Your task to perform on an android device: Clear all items from cart on amazon.com. Add "energizer triple a" to the cart on amazon.com, then select checkout. Image 0: 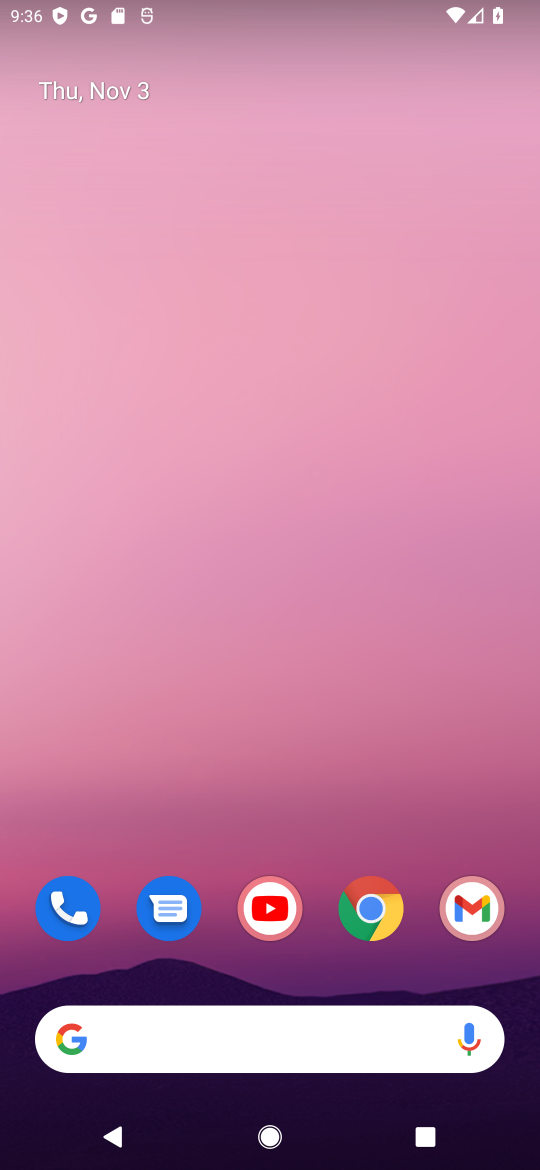
Step 0: click (368, 913)
Your task to perform on an android device: Clear all items from cart on amazon.com. Add "energizer triple a" to the cart on amazon.com, then select checkout. Image 1: 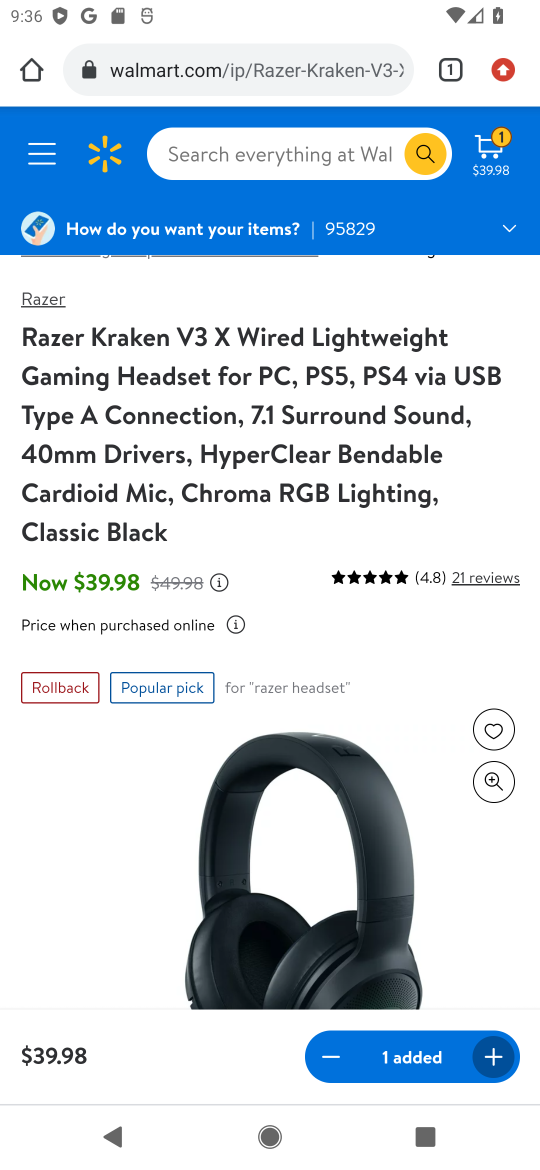
Step 1: click (299, 153)
Your task to perform on an android device: Clear all items from cart on amazon.com. Add "energizer triple a" to the cart on amazon.com, then select checkout. Image 2: 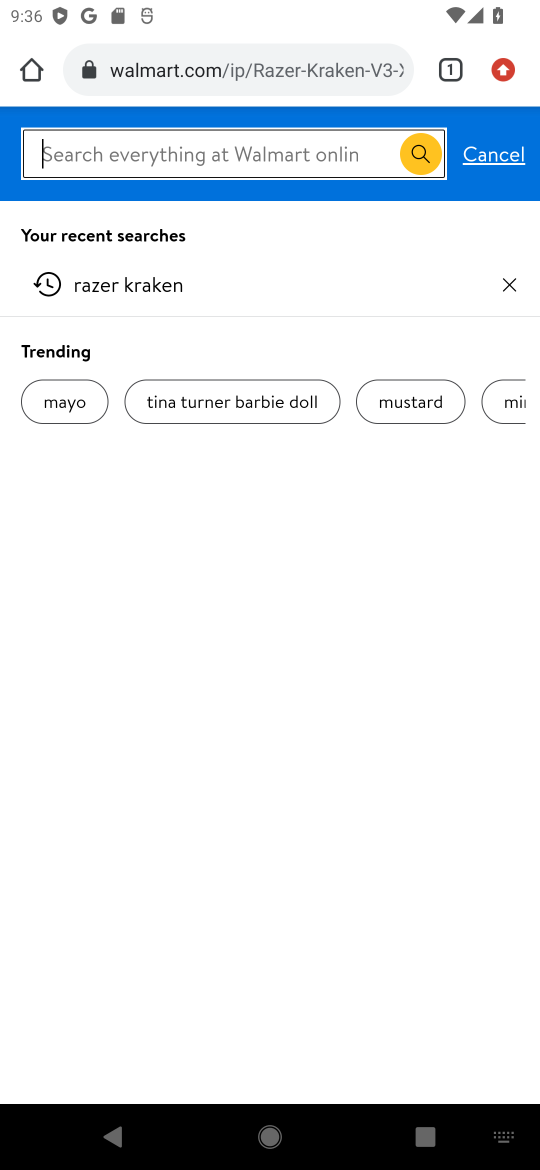
Step 2: type "amazon.com"
Your task to perform on an android device: Clear all items from cart on amazon.com. Add "energizer triple a" to the cart on amazon.com, then select checkout. Image 3: 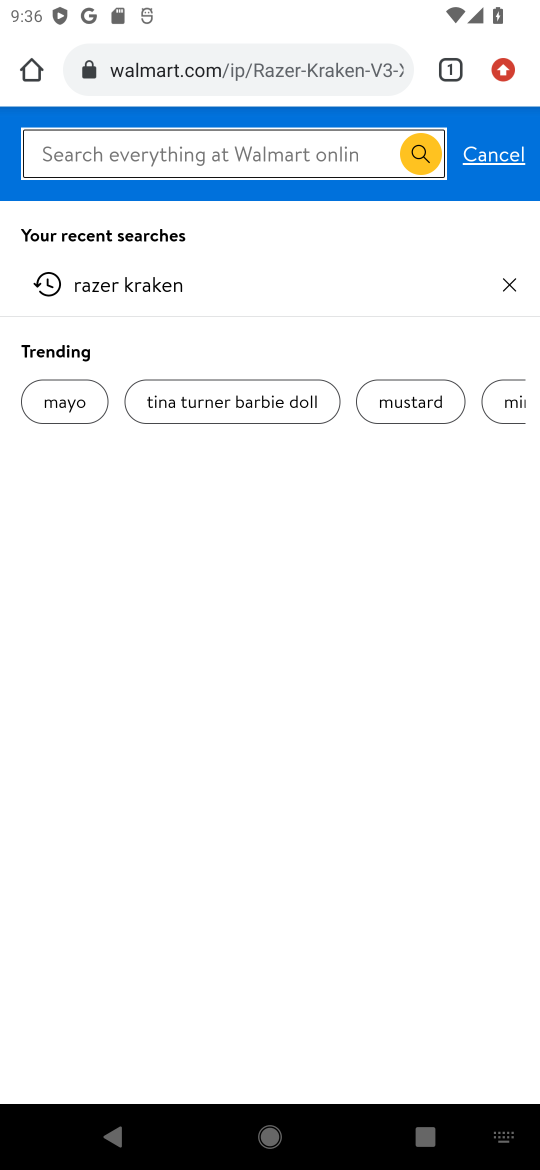
Step 3: press enter
Your task to perform on an android device: Clear all items from cart on amazon.com. Add "energizer triple a" to the cart on amazon.com, then select checkout. Image 4: 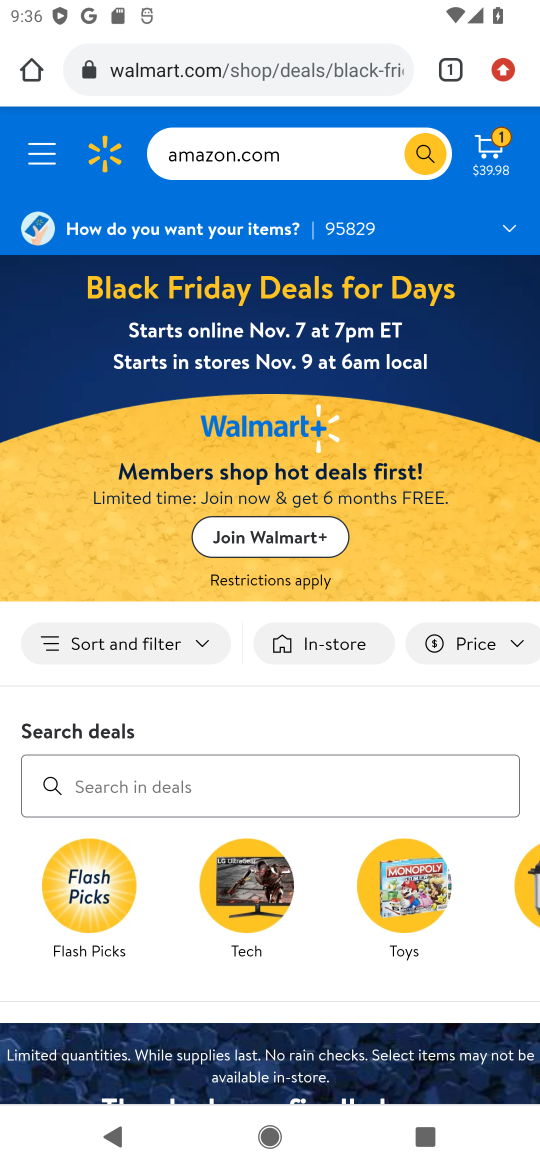
Step 4: click (31, 78)
Your task to perform on an android device: Clear all items from cart on amazon.com. Add "energizer triple a" to the cart on amazon.com, then select checkout. Image 5: 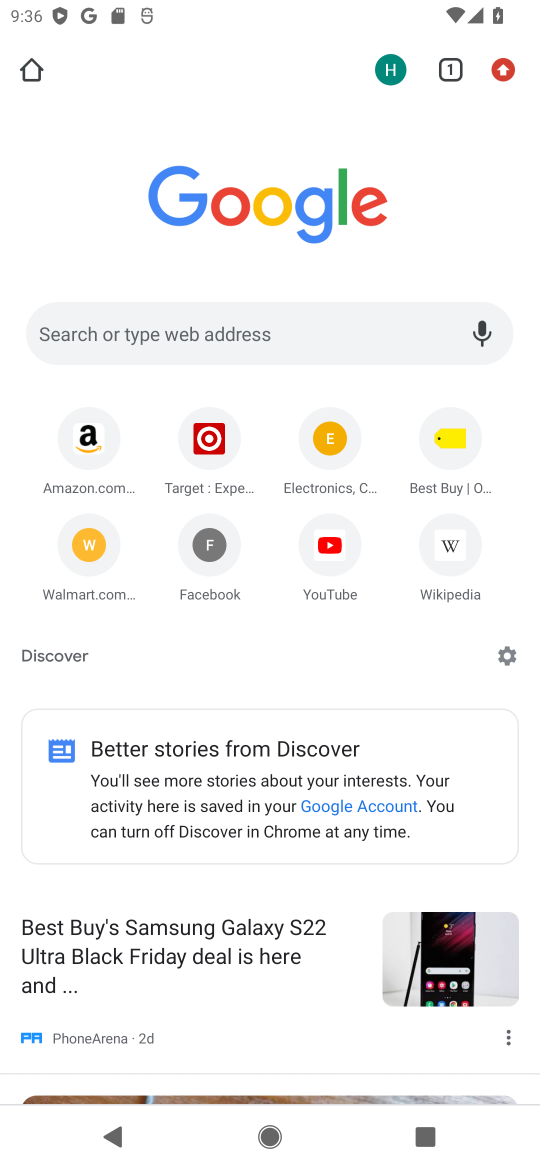
Step 5: click (233, 320)
Your task to perform on an android device: Clear all items from cart on amazon.com. Add "energizer triple a" to the cart on amazon.com, then select checkout. Image 6: 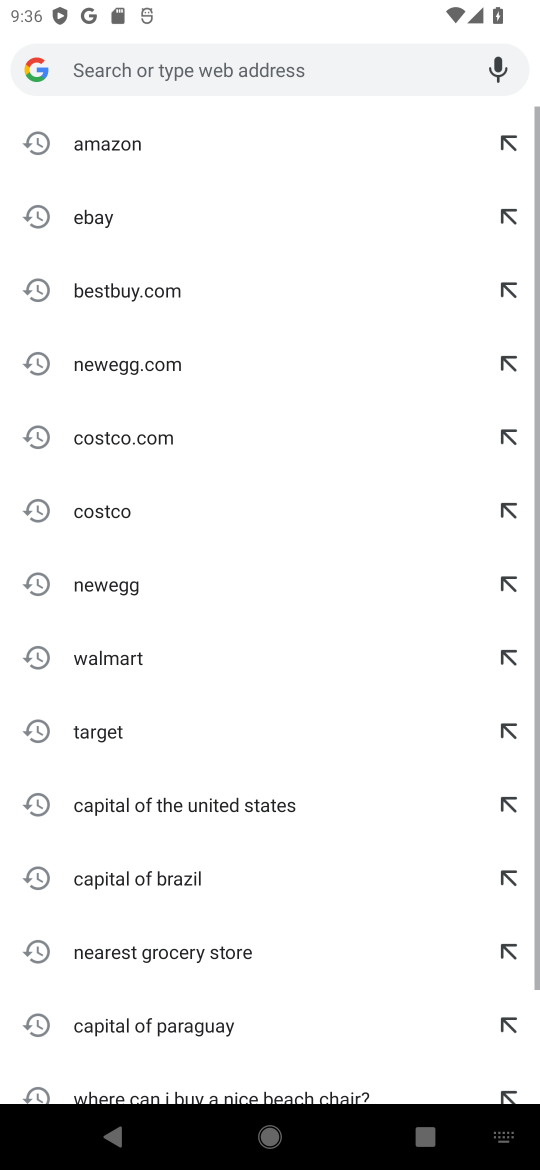
Step 6: type "amazon.com"
Your task to perform on an android device: Clear all items from cart on amazon.com. Add "energizer triple a" to the cart on amazon.com, then select checkout. Image 7: 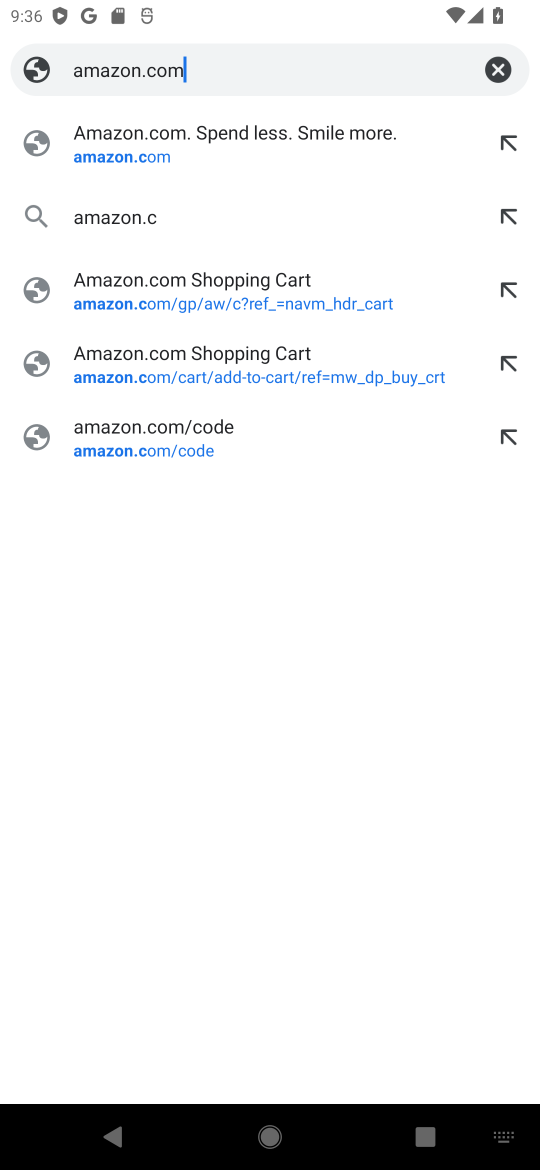
Step 7: press enter
Your task to perform on an android device: Clear all items from cart on amazon.com. Add "energizer triple a" to the cart on amazon.com, then select checkout. Image 8: 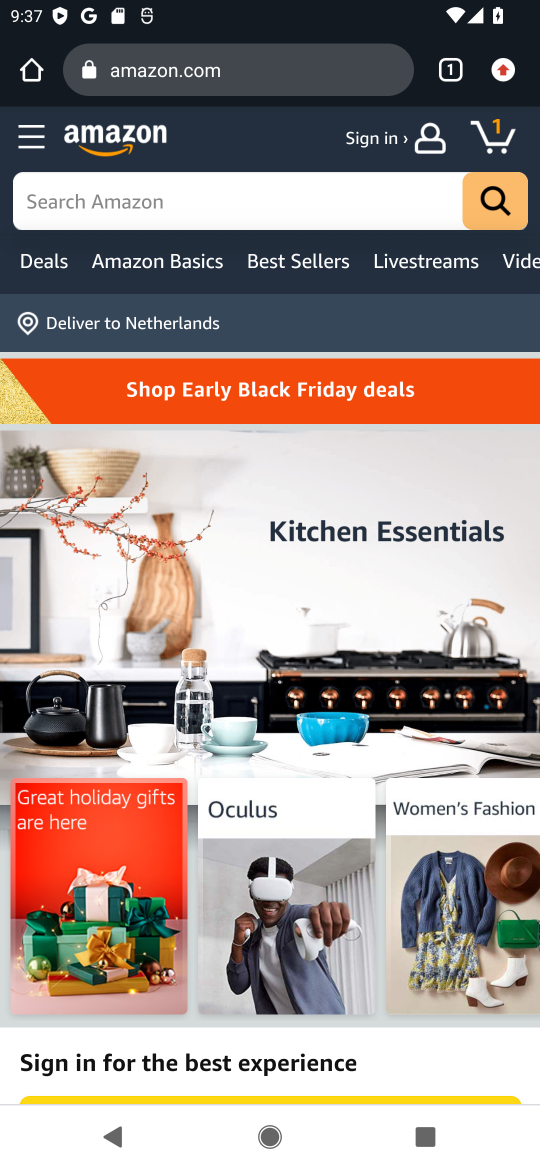
Step 8: click (489, 137)
Your task to perform on an android device: Clear all items from cart on amazon.com. Add "energizer triple a" to the cart on amazon.com, then select checkout. Image 9: 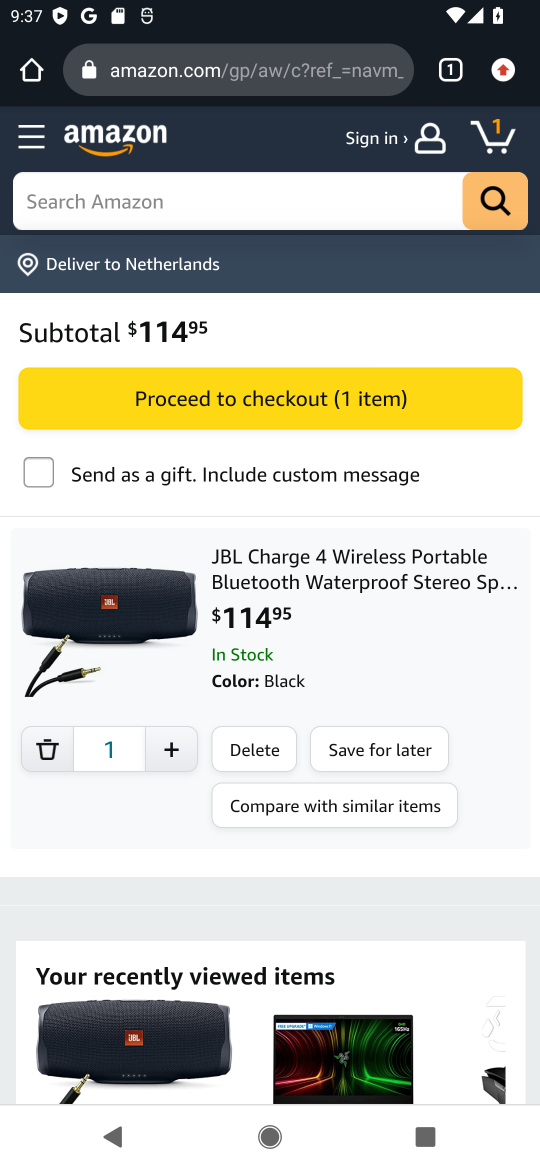
Step 9: click (249, 751)
Your task to perform on an android device: Clear all items from cart on amazon.com. Add "energizer triple a" to the cart on amazon.com, then select checkout. Image 10: 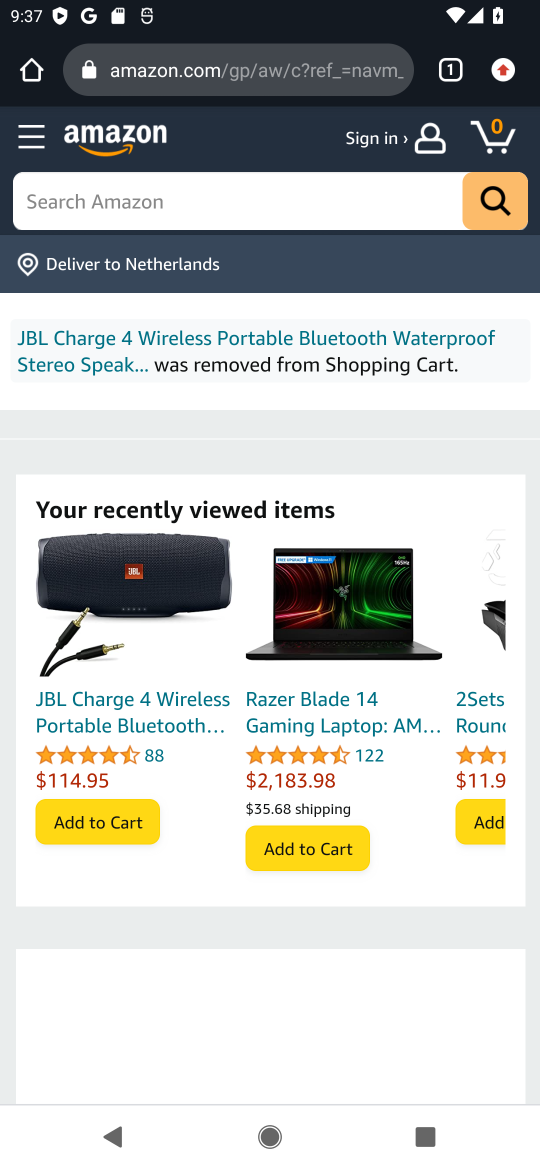
Step 10: click (232, 194)
Your task to perform on an android device: Clear all items from cart on amazon.com. Add "energizer triple a" to the cart on amazon.com, then select checkout. Image 11: 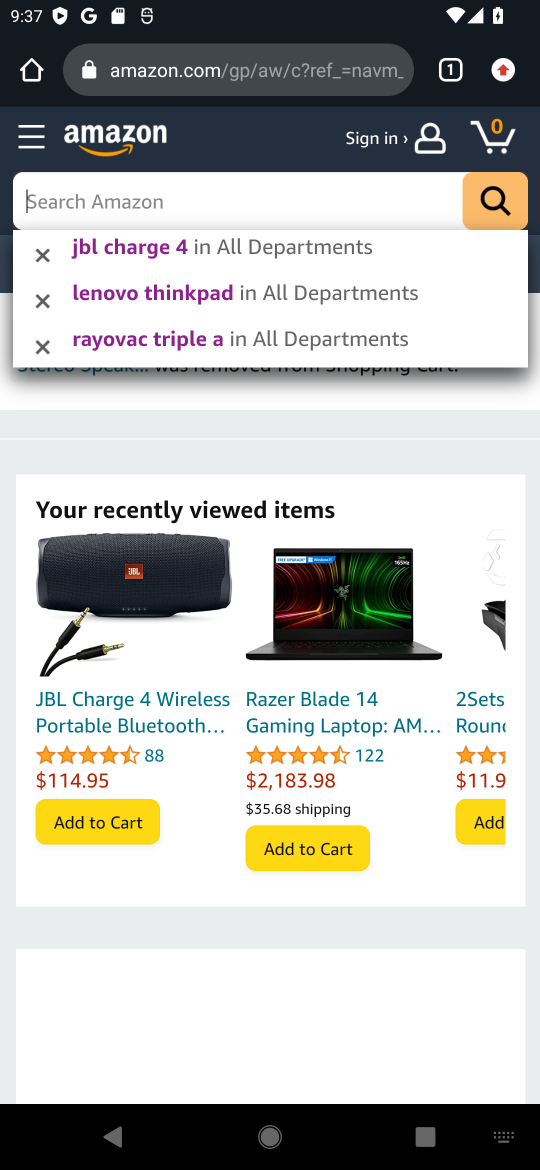
Step 11: type "energizer triple a"
Your task to perform on an android device: Clear all items from cart on amazon.com. Add "energizer triple a" to the cart on amazon.com, then select checkout. Image 12: 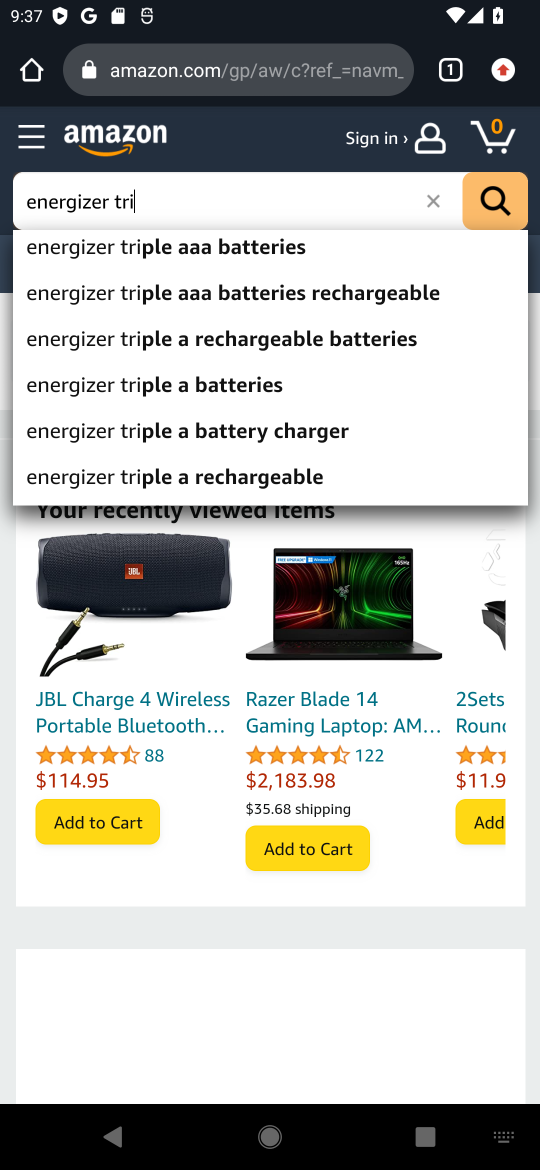
Step 12: press enter
Your task to perform on an android device: Clear all items from cart on amazon.com. Add "energizer triple a" to the cart on amazon.com, then select checkout. Image 13: 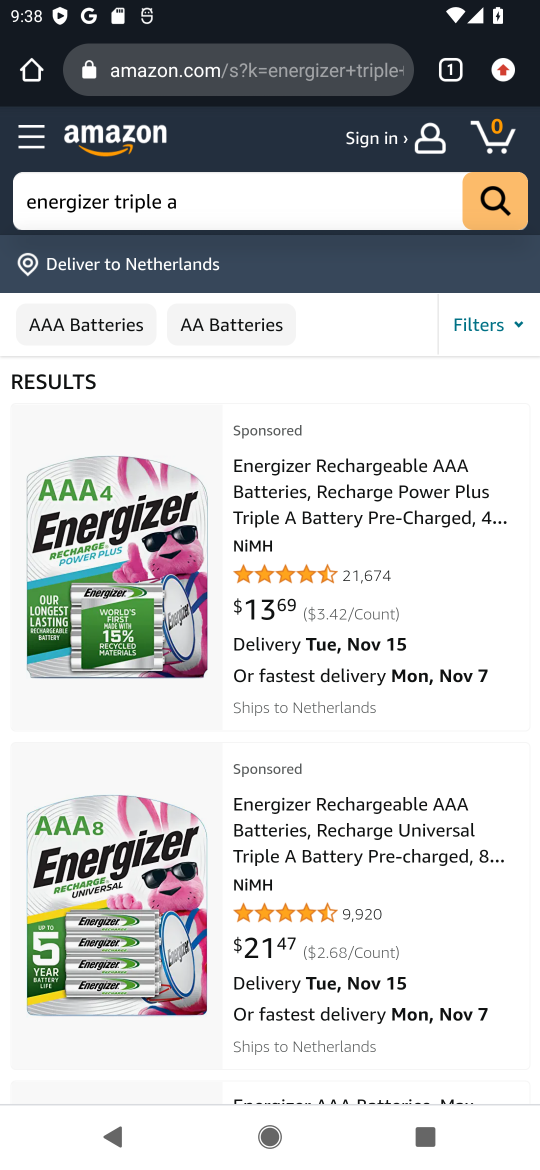
Step 13: click (371, 821)
Your task to perform on an android device: Clear all items from cart on amazon.com. Add "energizer triple a" to the cart on amazon.com, then select checkout. Image 14: 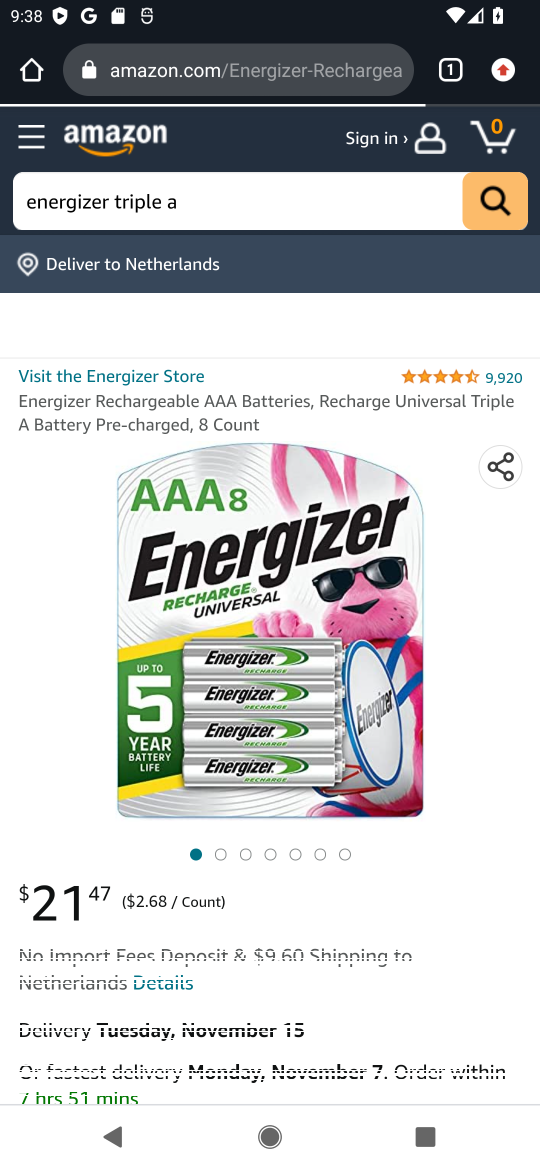
Step 14: drag from (440, 779) to (395, 313)
Your task to perform on an android device: Clear all items from cart on amazon.com. Add "energizer triple a" to the cart on amazon.com, then select checkout. Image 15: 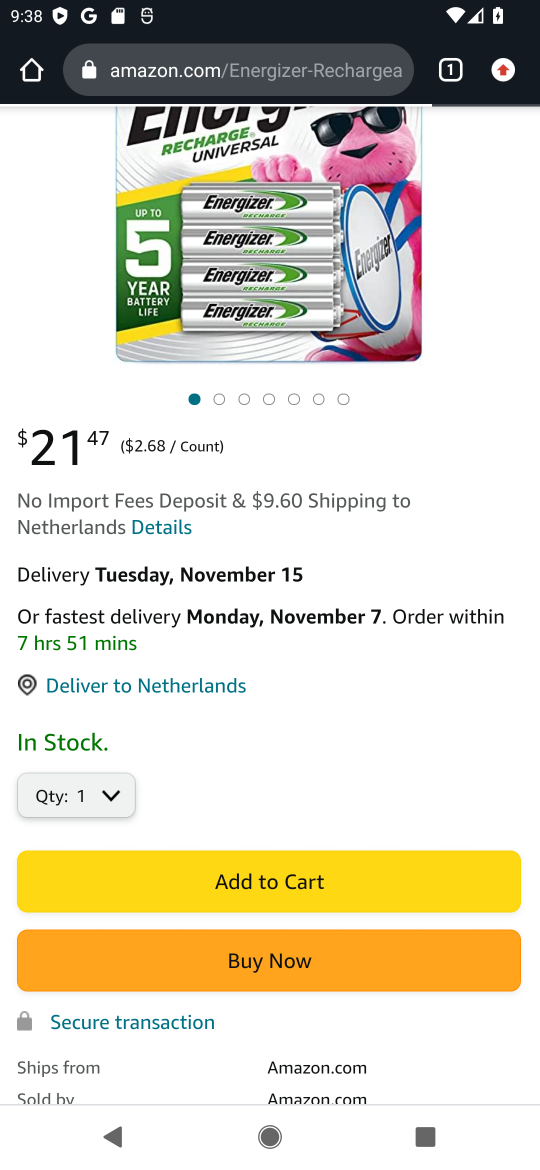
Step 15: click (331, 873)
Your task to perform on an android device: Clear all items from cart on amazon.com. Add "energizer triple a" to the cart on amazon.com, then select checkout. Image 16: 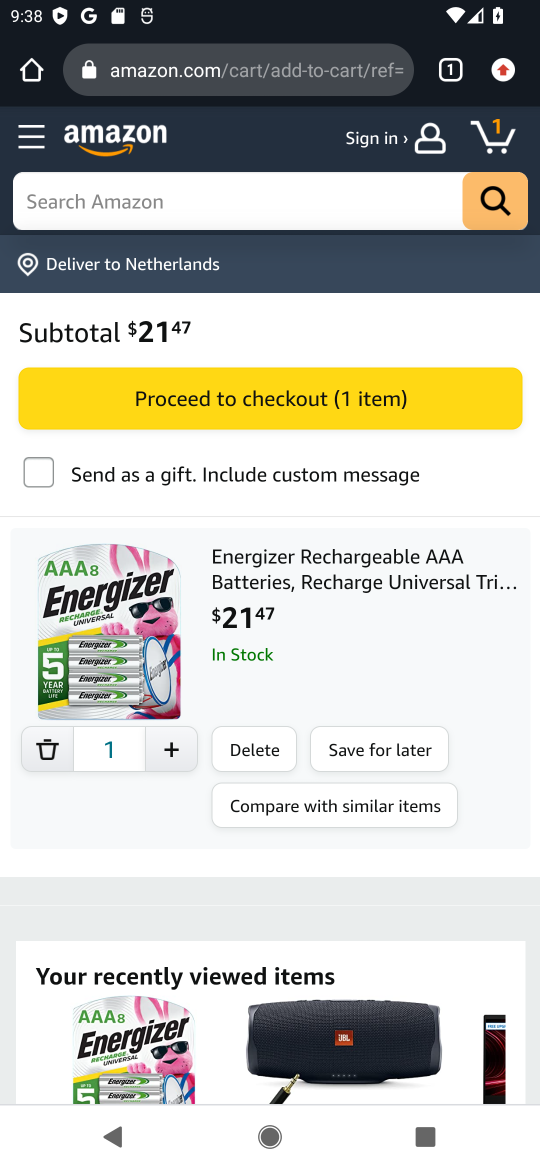
Step 16: click (491, 139)
Your task to perform on an android device: Clear all items from cart on amazon.com. Add "energizer triple a" to the cart on amazon.com, then select checkout. Image 17: 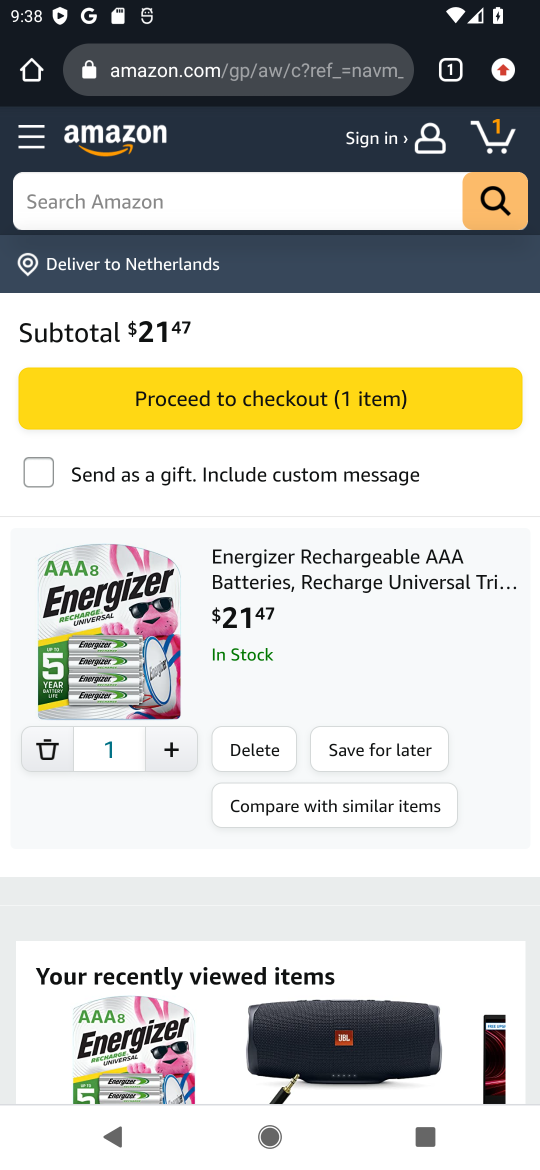
Step 17: click (507, 134)
Your task to perform on an android device: Clear all items from cart on amazon.com. Add "energizer triple a" to the cart on amazon.com, then select checkout. Image 18: 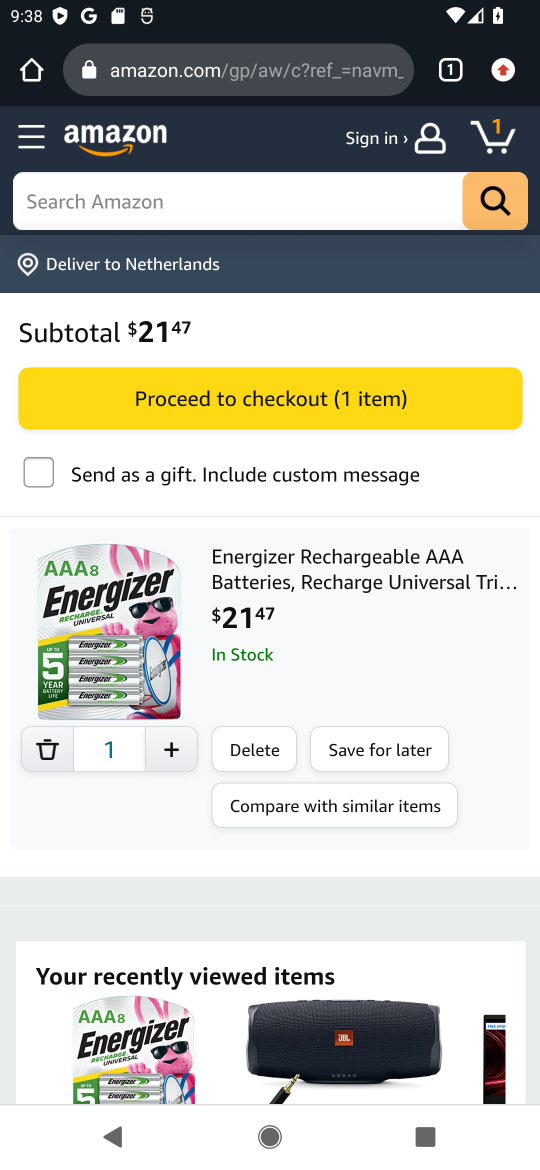
Step 18: click (295, 391)
Your task to perform on an android device: Clear all items from cart on amazon.com. Add "energizer triple a" to the cart on amazon.com, then select checkout. Image 19: 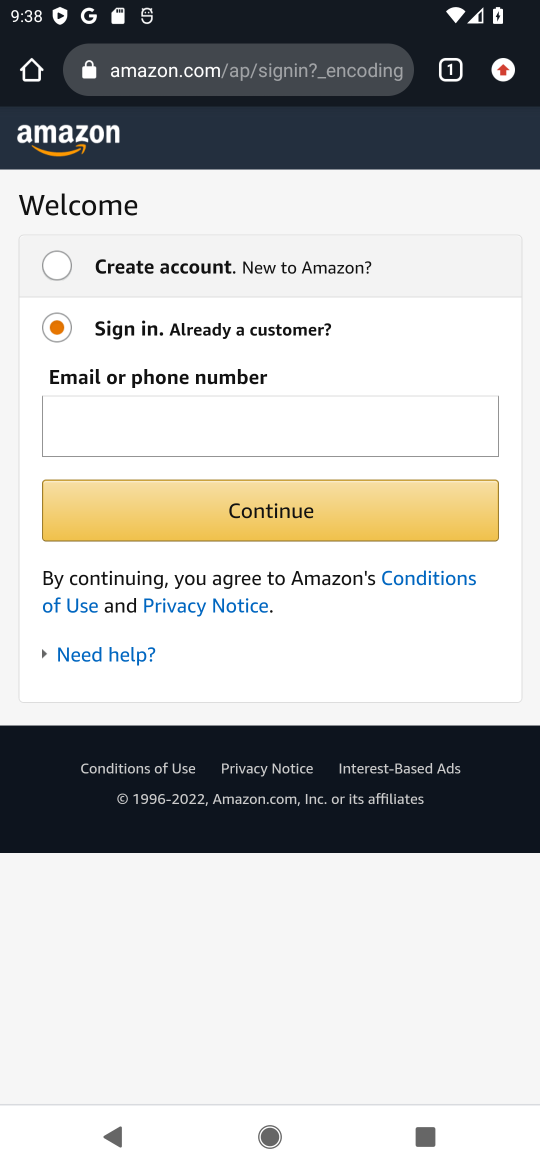
Step 19: task complete